Your task to perform on an android device: turn off smart reply in the gmail app Image 0: 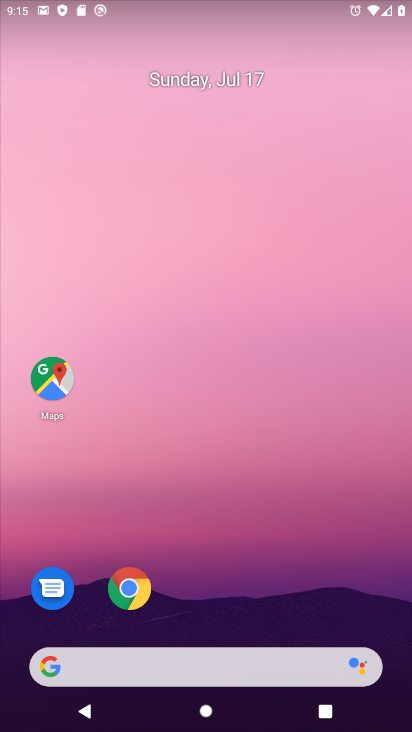
Step 0: drag from (247, 693) to (254, 187)
Your task to perform on an android device: turn off smart reply in the gmail app Image 1: 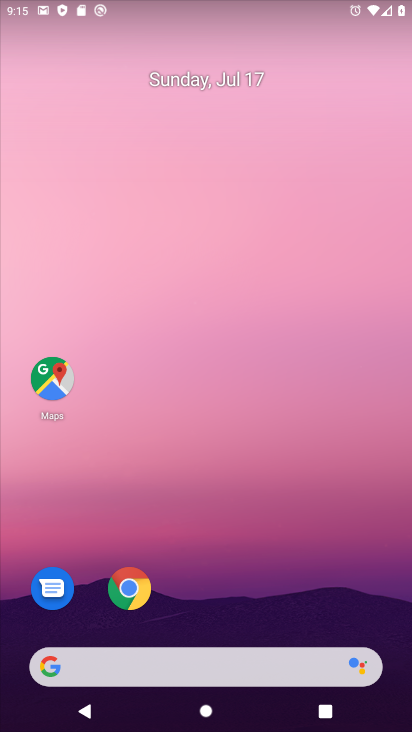
Step 1: drag from (222, 726) to (202, 67)
Your task to perform on an android device: turn off smart reply in the gmail app Image 2: 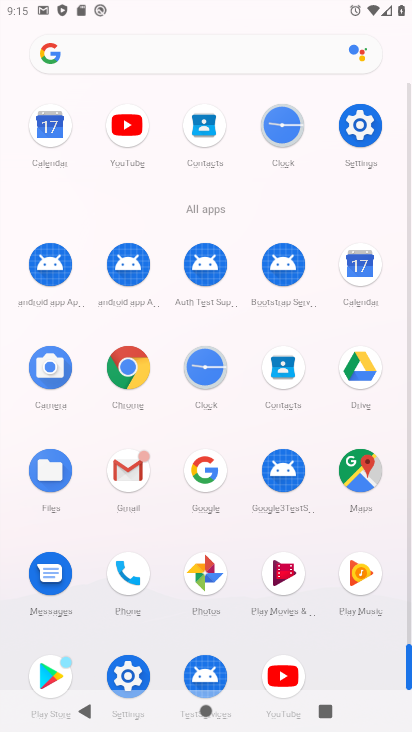
Step 2: click (127, 466)
Your task to perform on an android device: turn off smart reply in the gmail app Image 3: 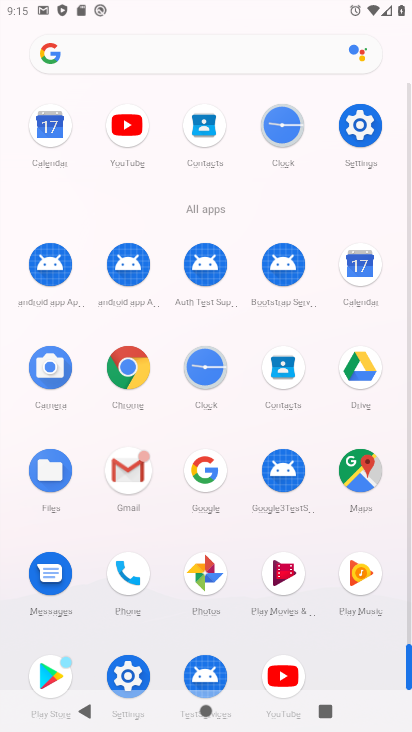
Step 3: click (127, 467)
Your task to perform on an android device: turn off smart reply in the gmail app Image 4: 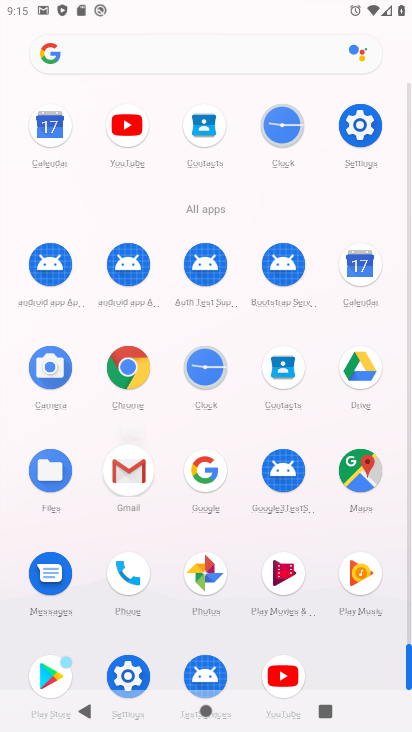
Step 4: click (127, 470)
Your task to perform on an android device: turn off smart reply in the gmail app Image 5: 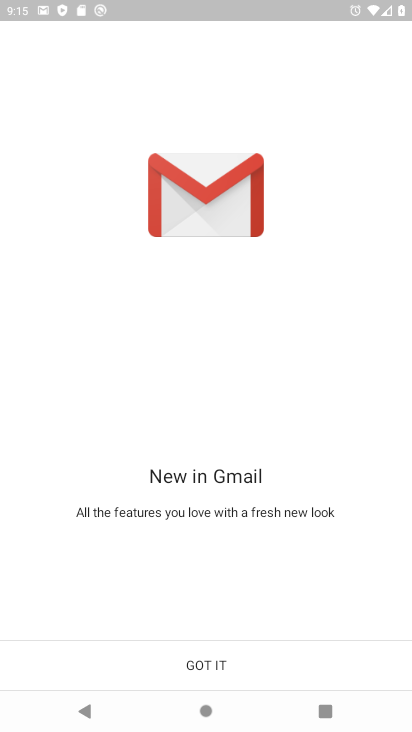
Step 5: click (216, 653)
Your task to perform on an android device: turn off smart reply in the gmail app Image 6: 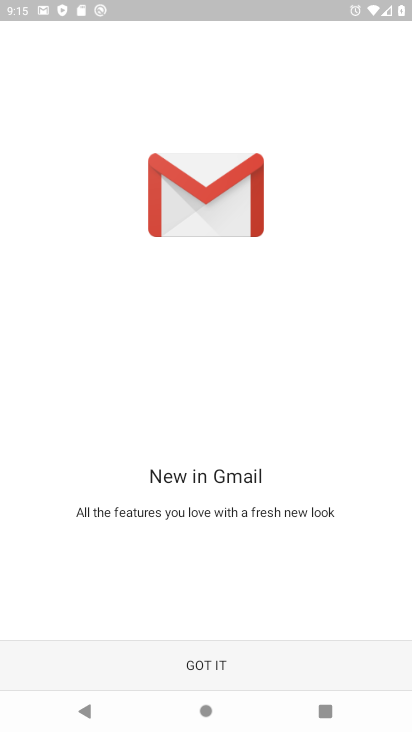
Step 6: click (217, 667)
Your task to perform on an android device: turn off smart reply in the gmail app Image 7: 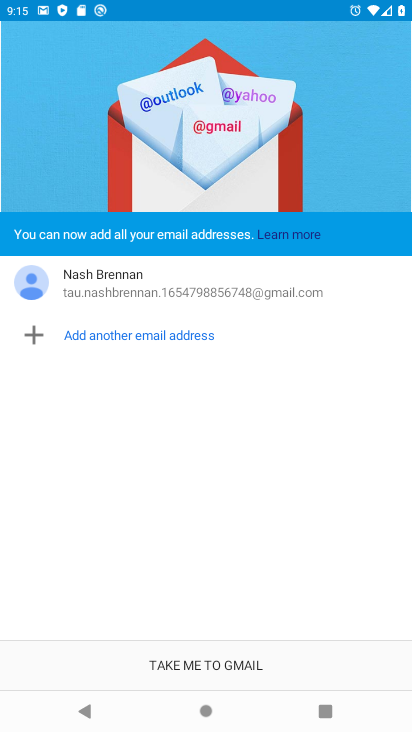
Step 7: click (242, 657)
Your task to perform on an android device: turn off smart reply in the gmail app Image 8: 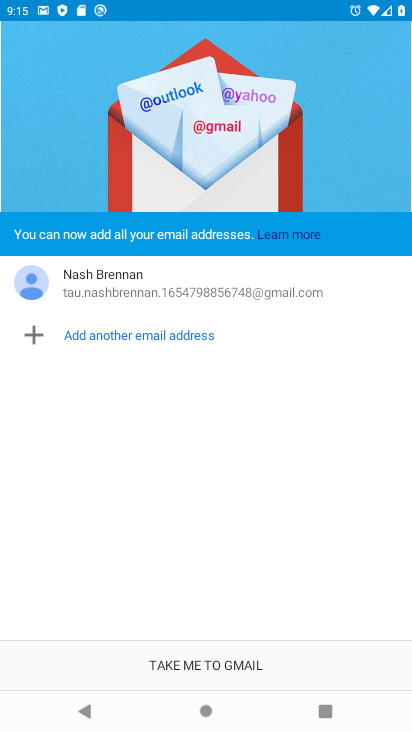
Step 8: click (248, 662)
Your task to perform on an android device: turn off smart reply in the gmail app Image 9: 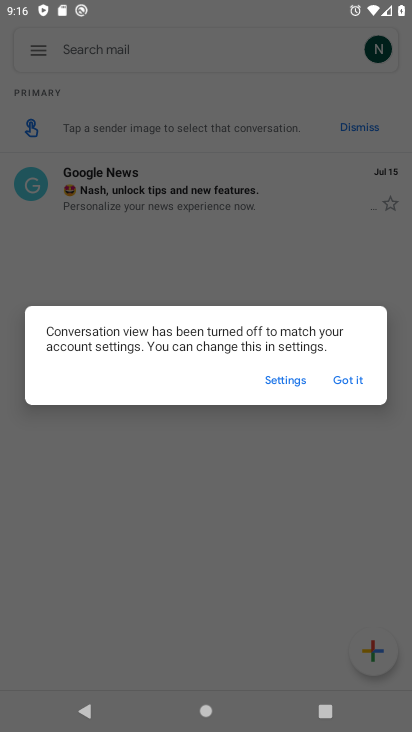
Step 9: click (352, 374)
Your task to perform on an android device: turn off smart reply in the gmail app Image 10: 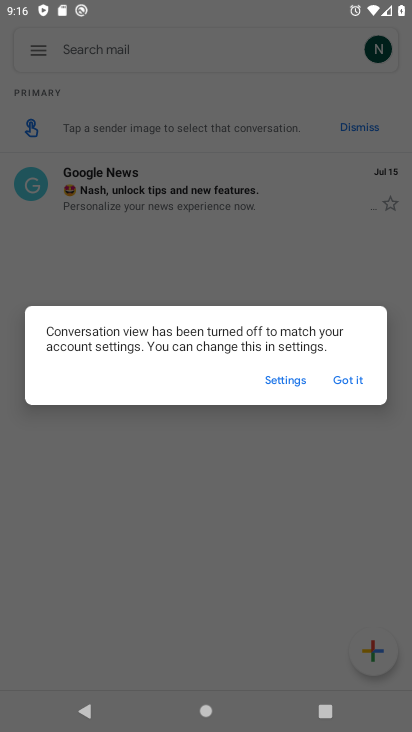
Step 10: click (352, 374)
Your task to perform on an android device: turn off smart reply in the gmail app Image 11: 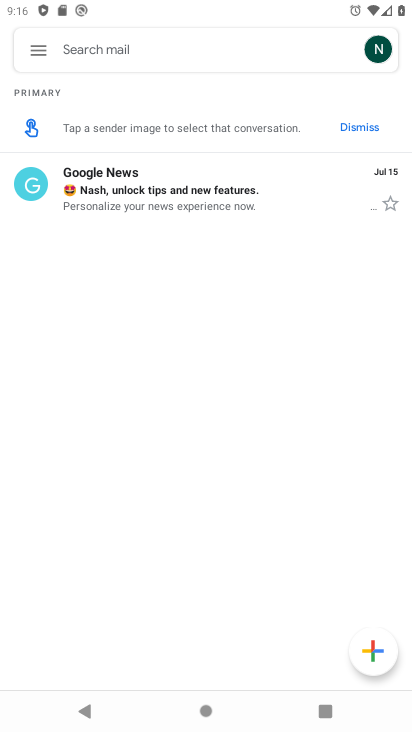
Step 11: click (34, 46)
Your task to perform on an android device: turn off smart reply in the gmail app Image 12: 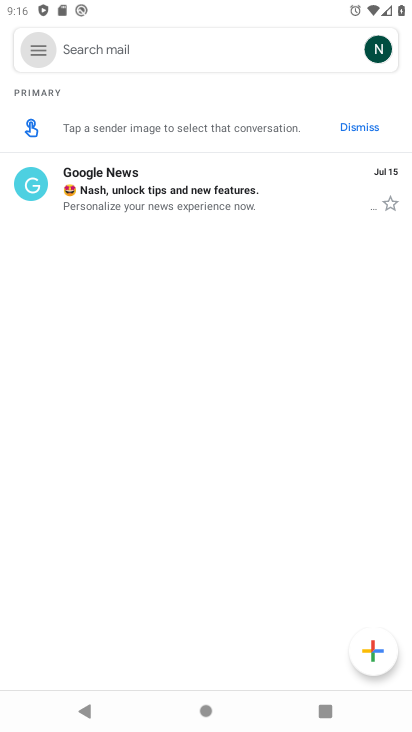
Step 12: click (34, 46)
Your task to perform on an android device: turn off smart reply in the gmail app Image 13: 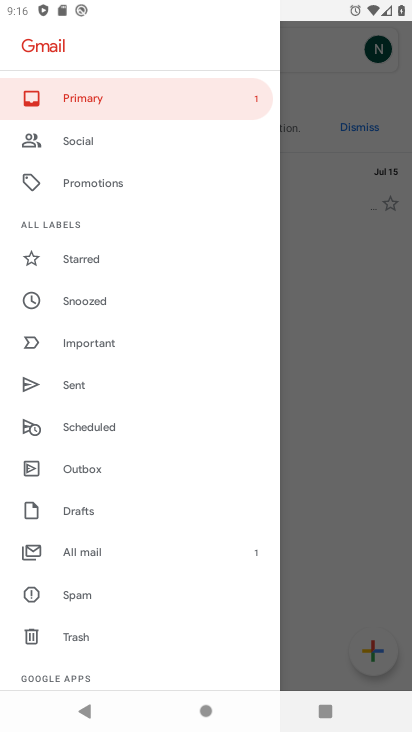
Step 13: drag from (112, 607) to (100, 169)
Your task to perform on an android device: turn off smart reply in the gmail app Image 14: 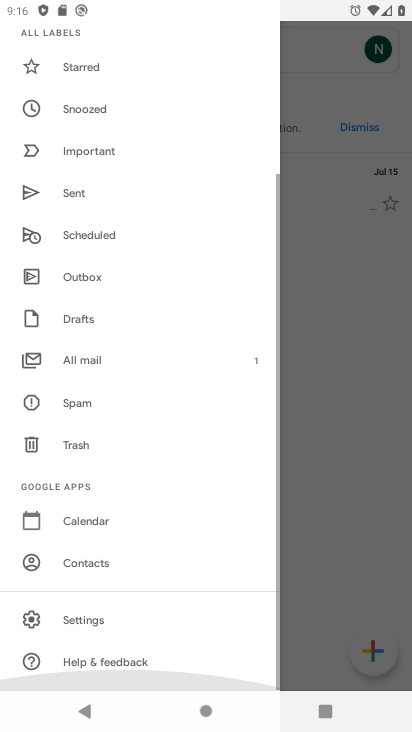
Step 14: drag from (112, 448) to (150, 123)
Your task to perform on an android device: turn off smart reply in the gmail app Image 15: 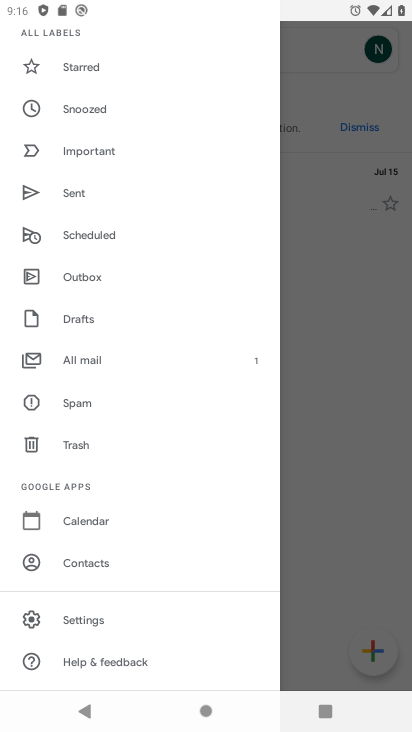
Step 15: click (78, 615)
Your task to perform on an android device: turn off smart reply in the gmail app Image 16: 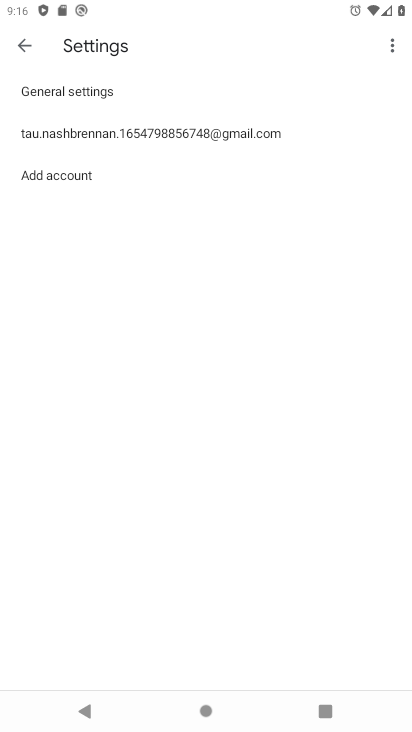
Step 16: click (133, 126)
Your task to perform on an android device: turn off smart reply in the gmail app Image 17: 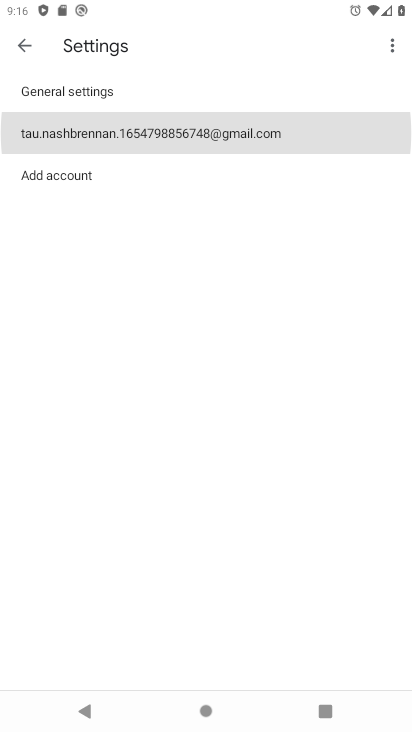
Step 17: click (132, 124)
Your task to perform on an android device: turn off smart reply in the gmail app Image 18: 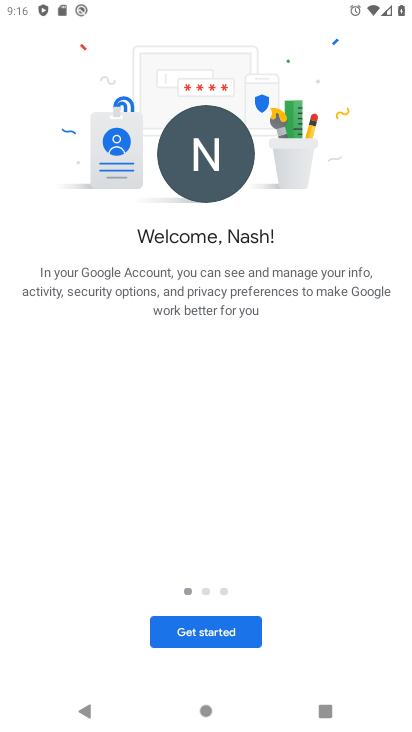
Step 18: click (205, 624)
Your task to perform on an android device: turn off smart reply in the gmail app Image 19: 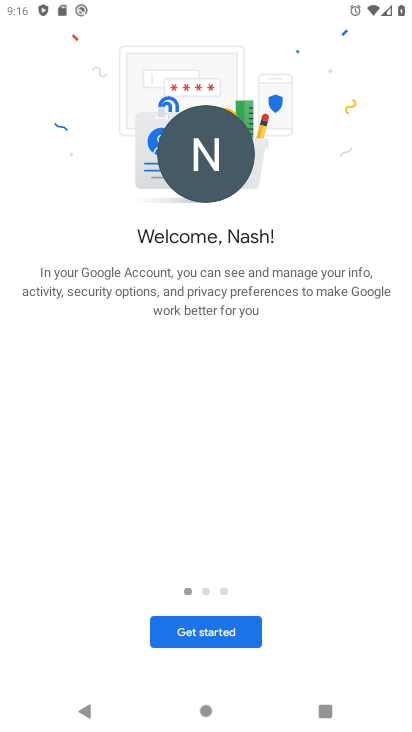
Step 19: click (217, 627)
Your task to perform on an android device: turn off smart reply in the gmail app Image 20: 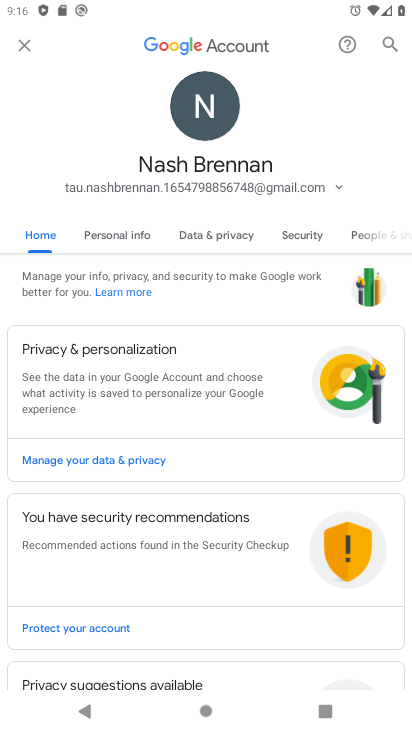
Step 20: click (20, 46)
Your task to perform on an android device: turn off smart reply in the gmail app Image 21: 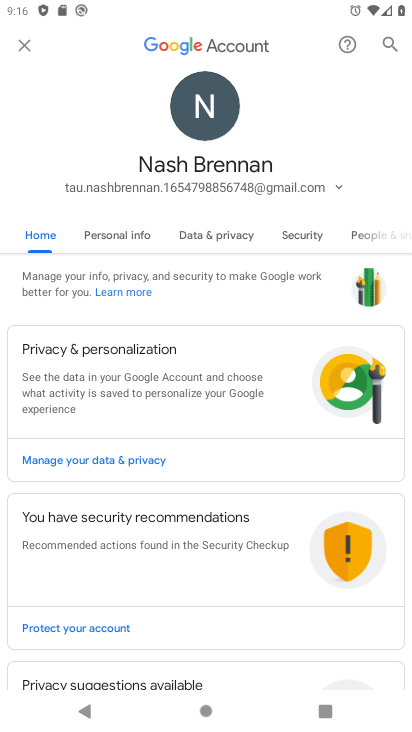
Step 21: click (20, 46)
Your task to perform on an android device: turn off smart reply in the gmail app Image 22: 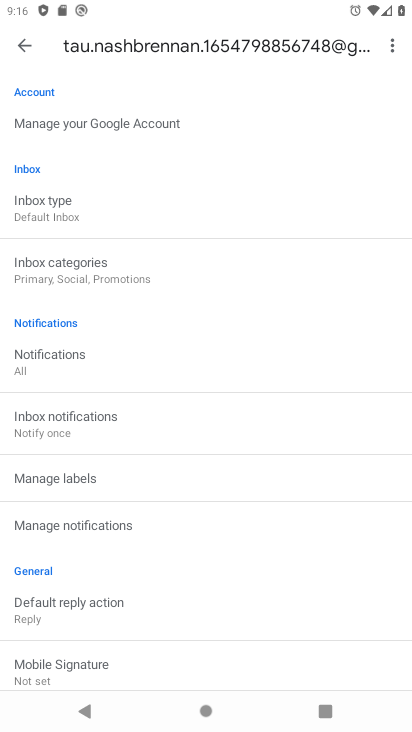
Step 22: drag from (121, 586) to (113, 154)
Your task to perform on an android device: turn off smart reply in the gmail app Image 23: 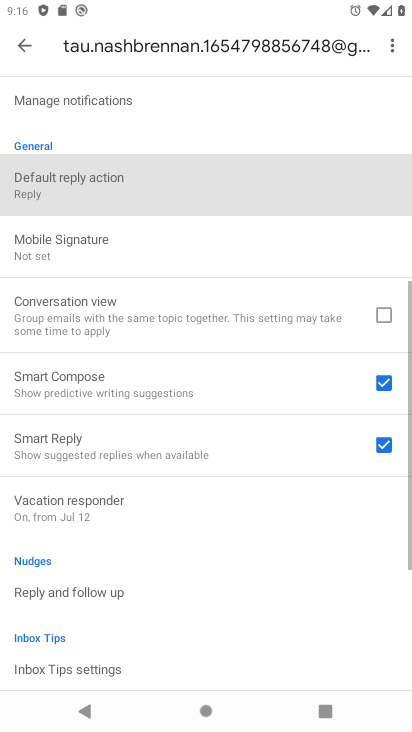
Step 23: drag from (92, 579) to (107, 226)
Your task to perform on an android device: turn off smart reply in the gmail app Image 24: 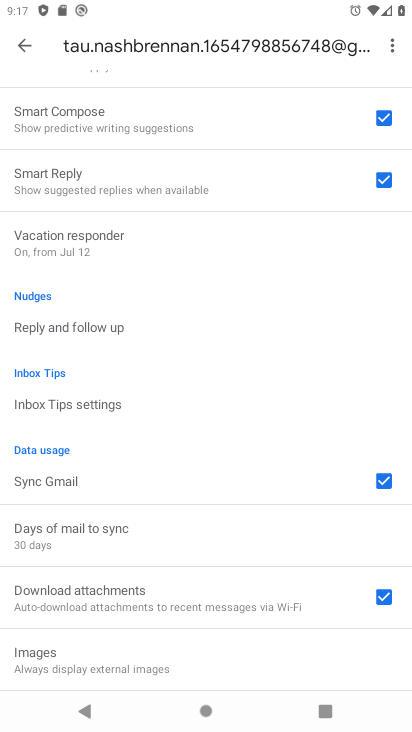
Step 24: click (382, 175)
Your task to perform on an android device: turn off smart reply in the gmail app Image 25: 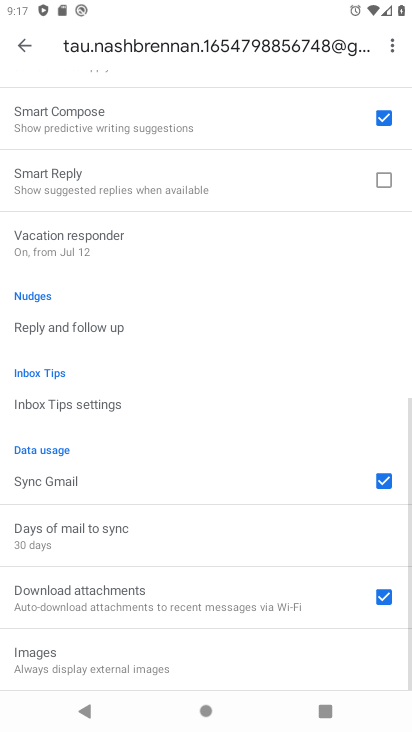
Step 25: task complete